Your task to perform on an android device: Open calendar and show me the first week of next month Image 0: 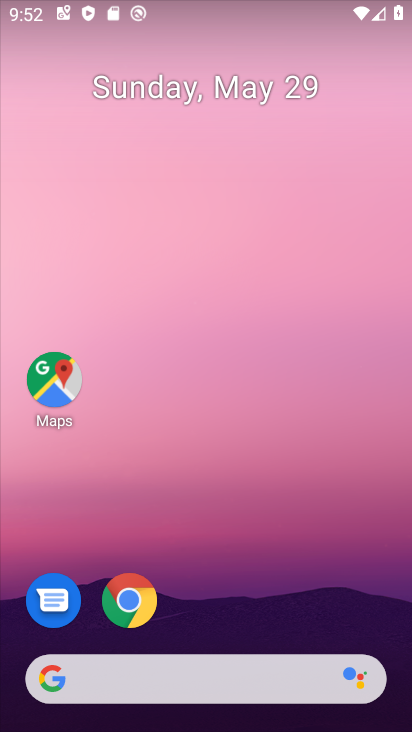
Step 0: drag from (245, 719) to (213, 101)
Your task to perform on an android device: Open calendar and show me the first week of next month Image 1: 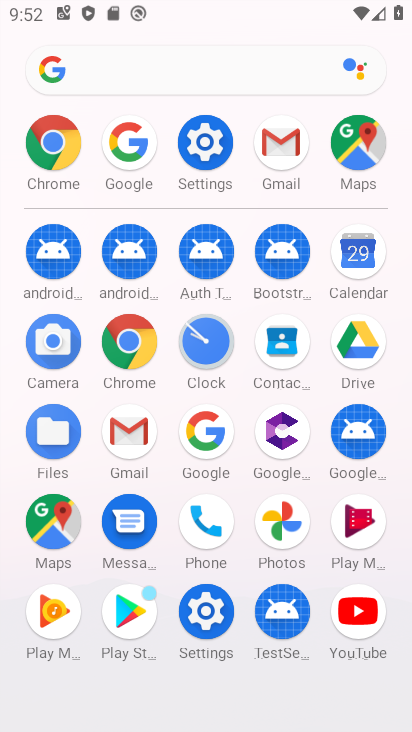
Step 1: click (361, 261)
Your task to perform on an android device: Open calendar and show me the first week of next month Image 2: 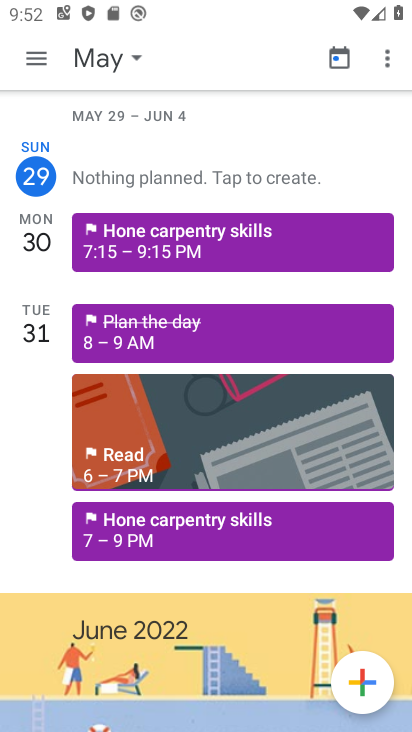
Step 2: click (134, 57)
Your task to perform on an android device: Open calendar and show me the first week of next month Image 3: 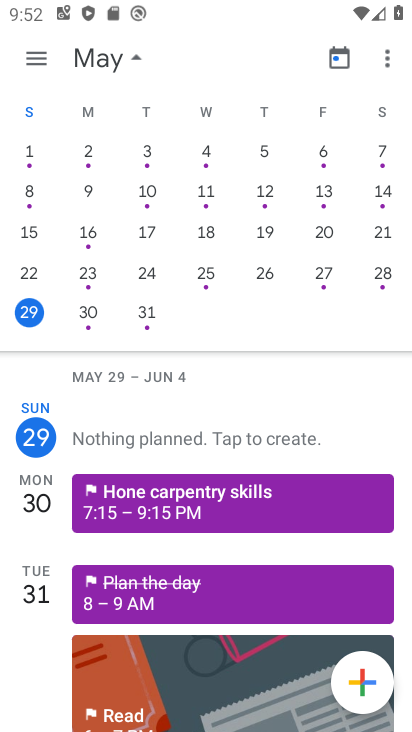
Step 3: drag from (341, 250) to (0, 217)
Your task to perform on an android device: Open calendar and show me the first week of next month Image 4: 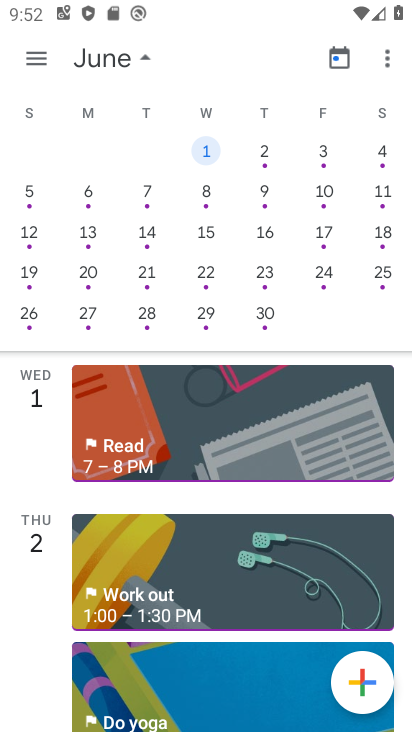
Step 4: click (93, 187)
Your task to perform on an android device: Open calendar and show me the first week of next month Image 5: 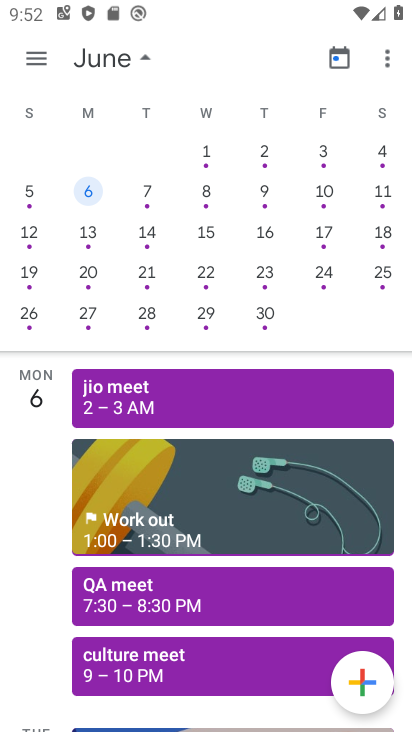
Step 5: click (36, 58)
Your task to perform on an android device: Open calendar and show me the first week of next month Image 6: 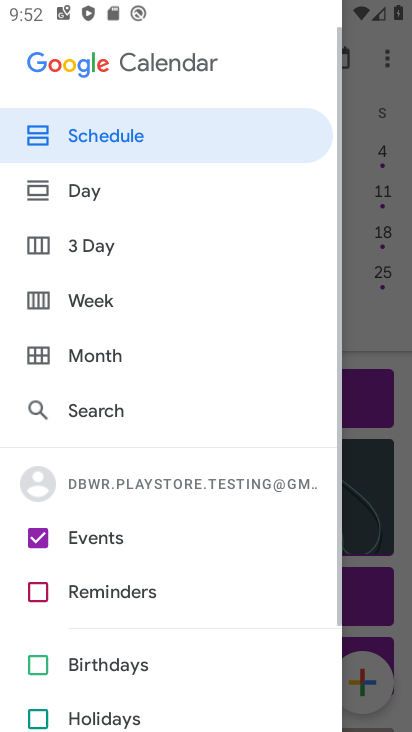
Step 6: click (99, 303)
Your task to perform on an android device: Open calendar and show me the first week of next month Image 7: 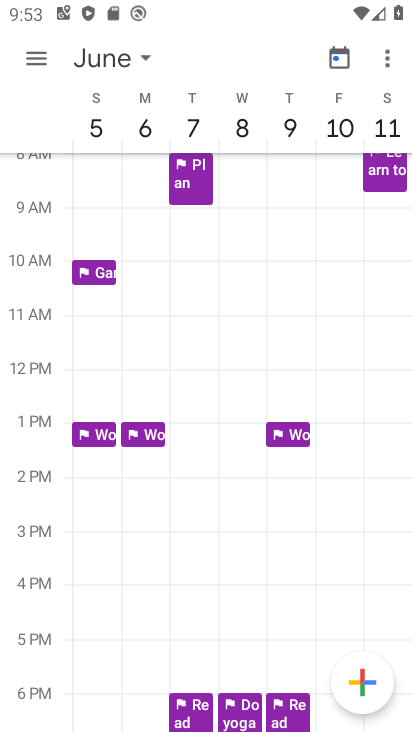
Step 7: click (144, 60)
Your task to perform on an android device: Open calendar and show me the first week of next month Image 8: 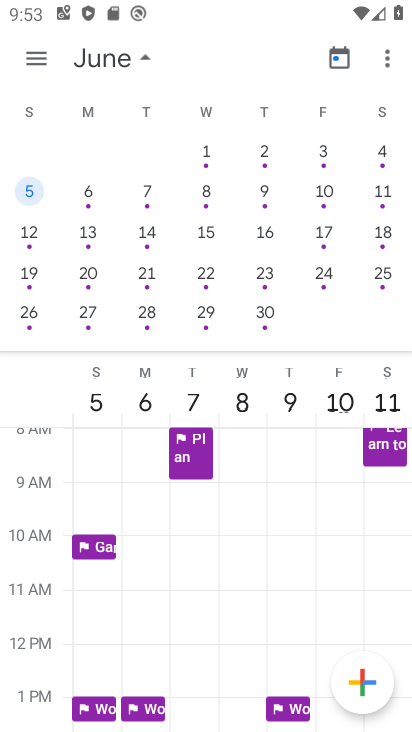
Step 8: click (93, 309)
Your task to perform on an android device: Open calendar and show me the first week of next month Image 9: 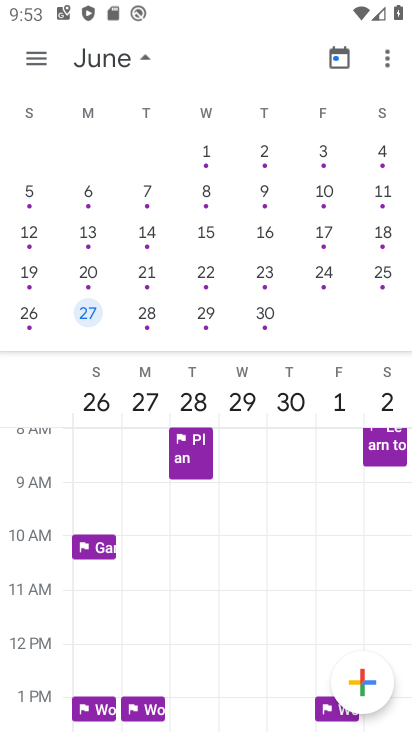
Step 9: click (35, 47)
Your task to perform on an android device: Open calendar and show me the first week of next month Image 10: 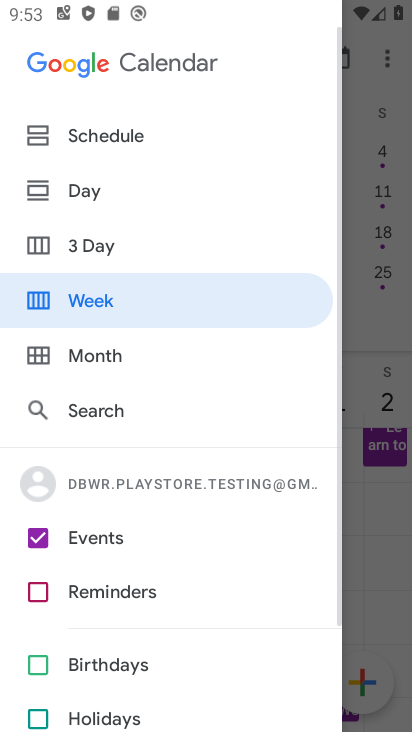
Step 10: click (97, 296)
Your task to perform on an android device: Open calendar and show me the first week of next month Image 11: 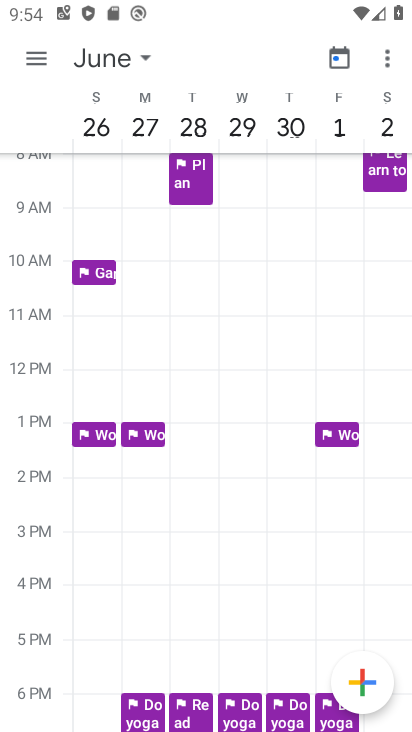
Step 11: click (154, 56)
Your task to perform on an android device: Open calendar and show me the first week of next month Image 12: 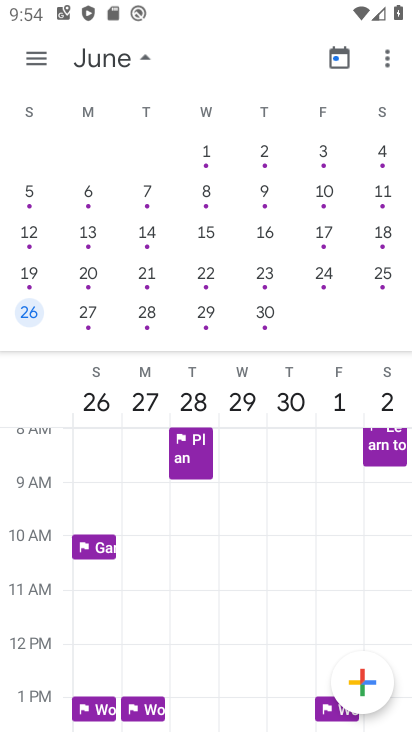
Step 12: click (91, 187)
Your task to perform on an android device: Open calendar and show me the first week of next month Image 13: 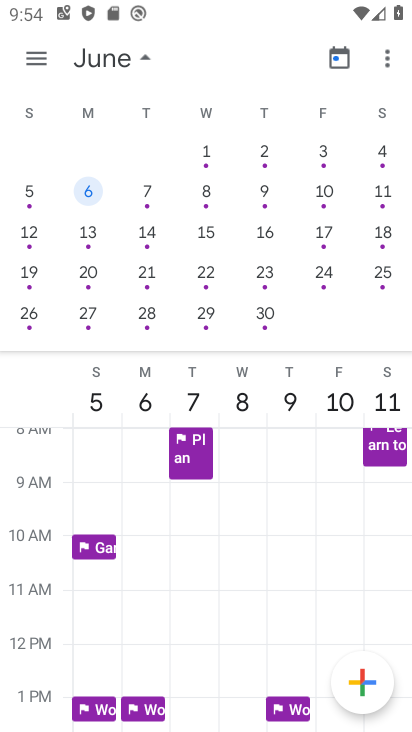
Step 13: click (36, 56)
Your task to perform on an android device: Open calendar and show me the first week of next month Image 14: 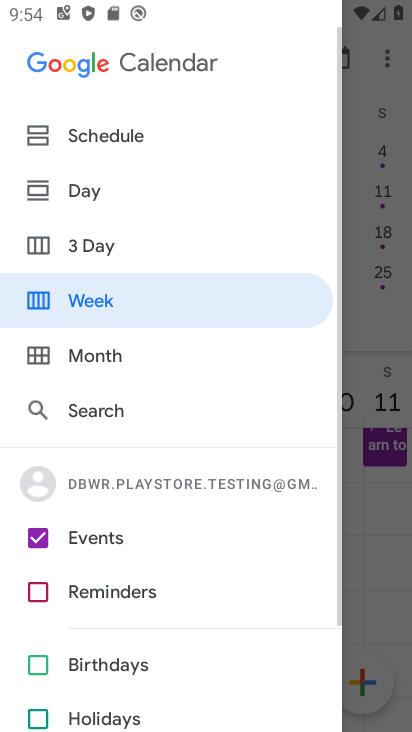
Step 14: click (76, 310)
Your task to perform on an android device: Open calendar and show me the first week of next month Image 15: 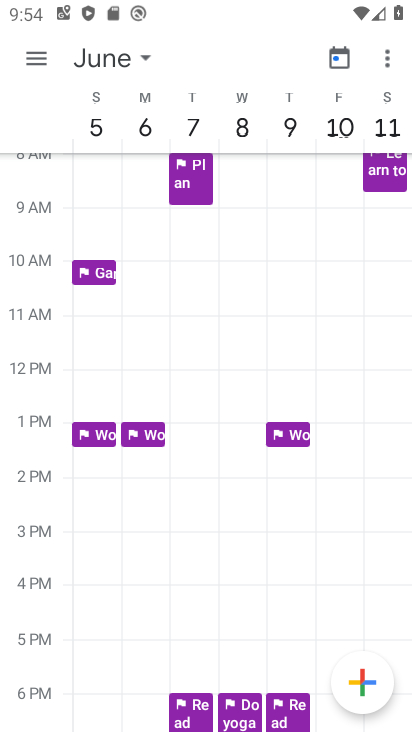
Step 15: task complete